Your task to perform on an android device: add a label to a message in the gmail app Image 0: 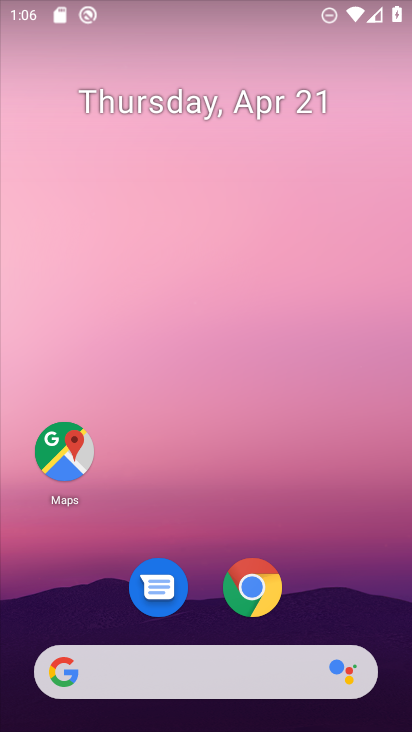
Step 0: drag from (316, 589) to (284, 80)
Your task to perform on an android device: add a label to a message in the gmail app Image 1: 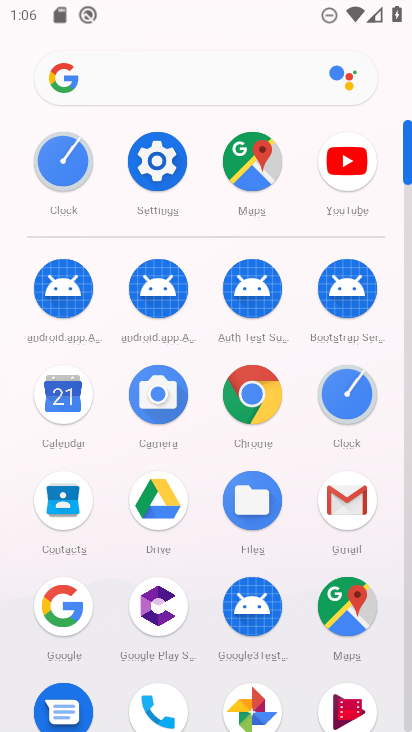
Step 1: click (354, 500)
Your task to perform on an android device: add a label to a message in the gmail app Image 2: 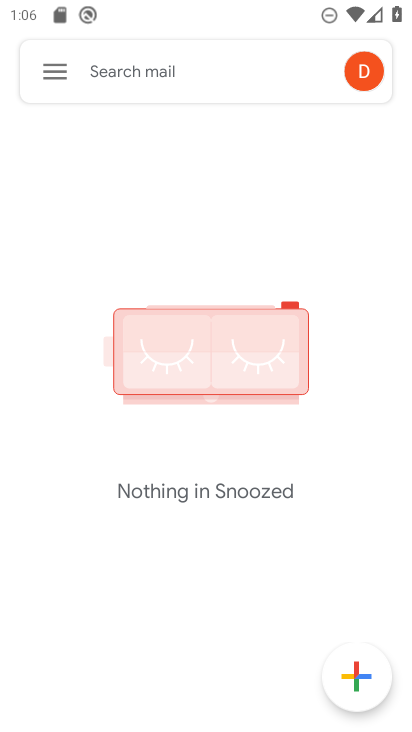
Step 2: click (48, 75)
Your task to perform on an android device: add a label to a message in the gmail app Image 3: 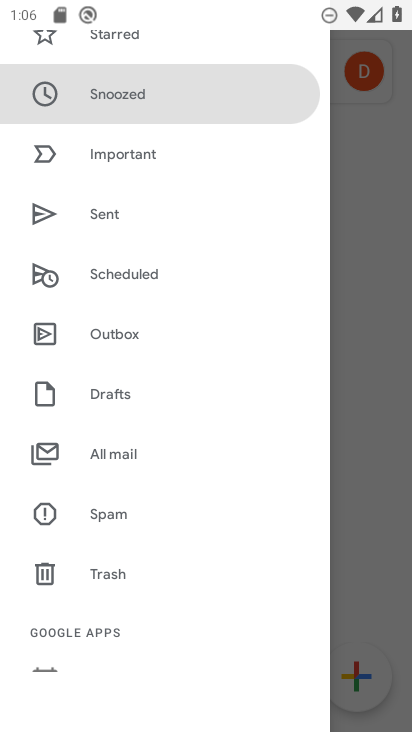
Step 3: click (121, 452)
Your task to perform on an android device: add a label to a message in the gmail app Image 4: 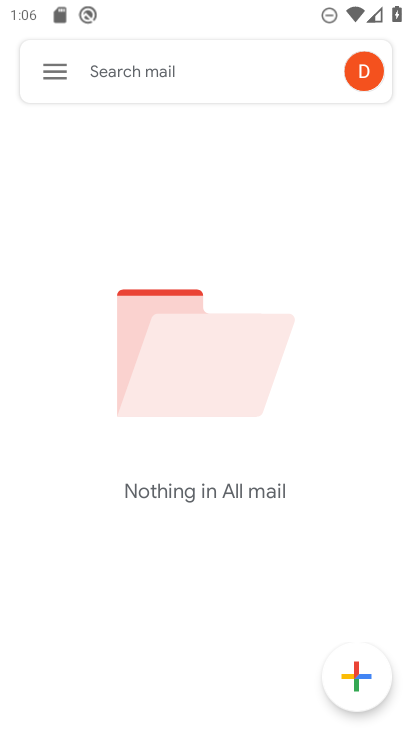
Step 4: task complete